Your task to perform on an android device: Open location settings Image 0: 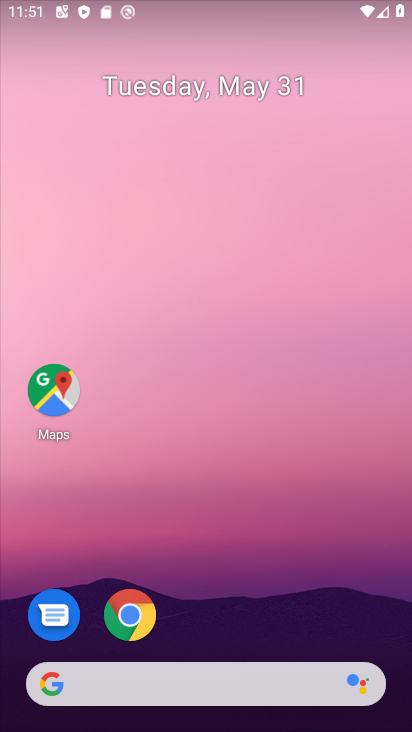
Step 0: task complete